Your task to perform on an android device: When is my next appointment? Image 0: 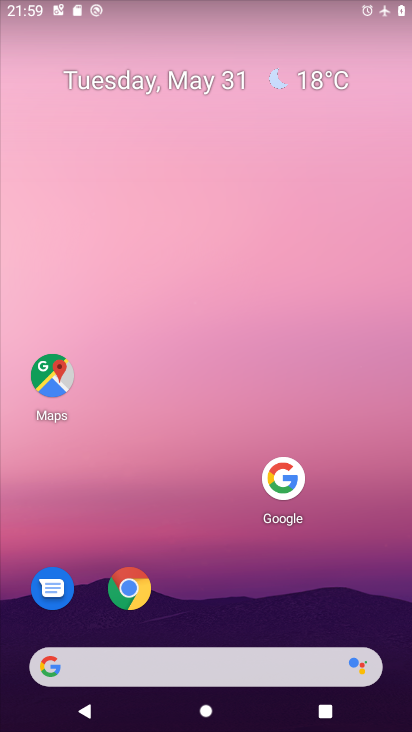
Step 0: drag from (185, 672) to (286, 172)
Your task to perform on an android device: When is my next appointment? Image 1: 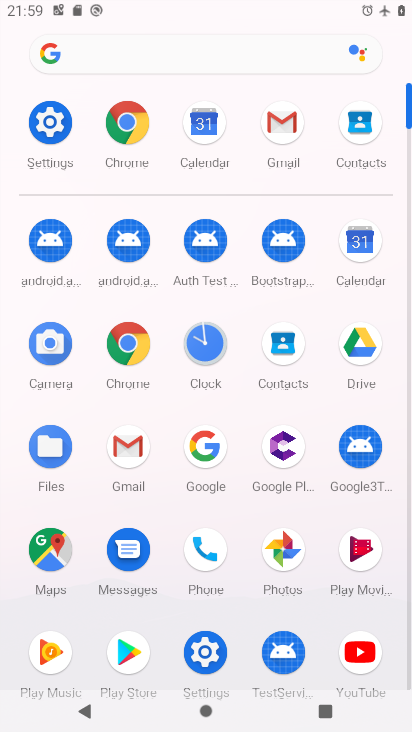
Step 1: click (360, 246)
Your task to perform on an android device: When is my next appointment? Image 2: 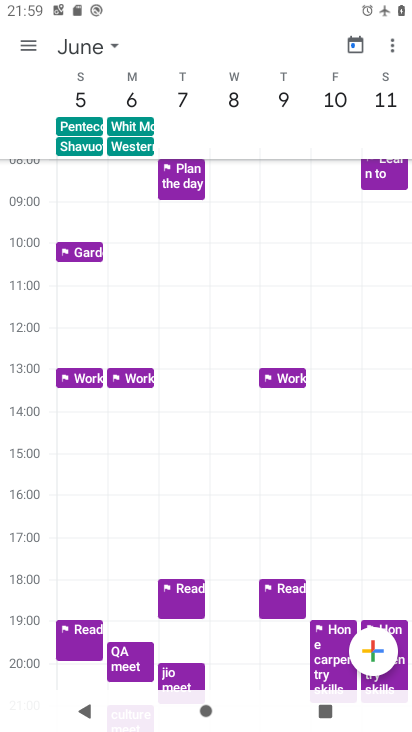
Step 2: click (30, 45)
Your task to perform on an android device: When is my next appointment? Image 3: 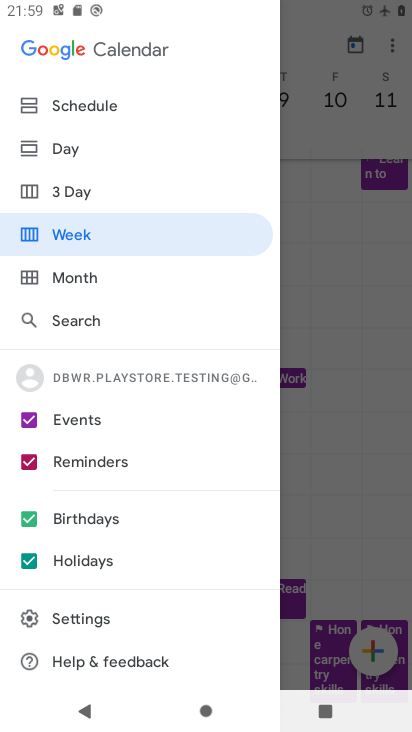
Step 3: click (82, 111)
Your task to perform on an android device: When is my next appointment? Image 4: 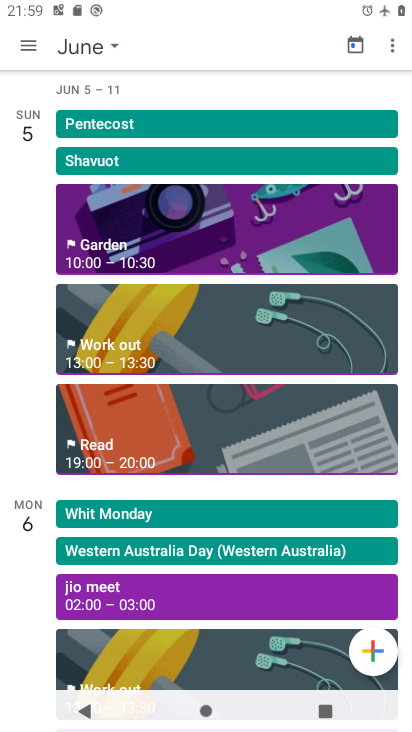
Step 4: click (193, 231)
Your task to perform on an android device: When is my next appointment? Image 5: 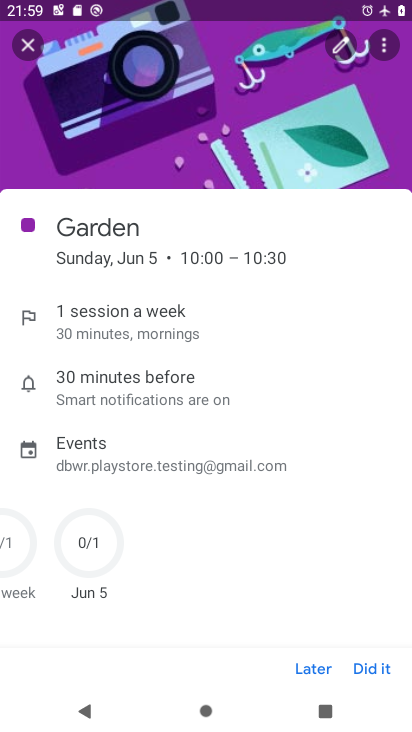
Step 5: task complete